Your task to perform on an android device: Open the phone app and click the voicemail tab. Image 0: 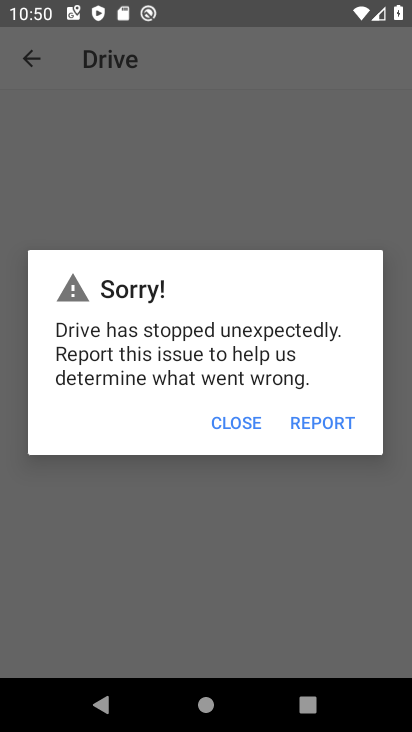
Step 0: click (331, 421)
Your task to perform on an android device: Open the phone app and click the voicemail tab. Image 1: 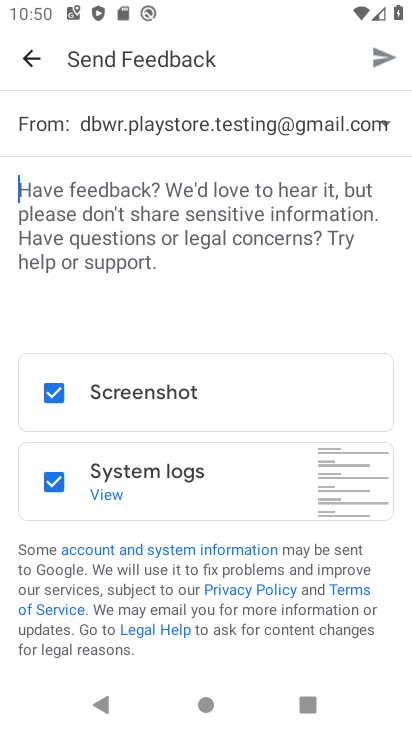
Step 1: press home button
Your task to perform on an android device: Open the phone app and click the voicemail tab. Image 2: 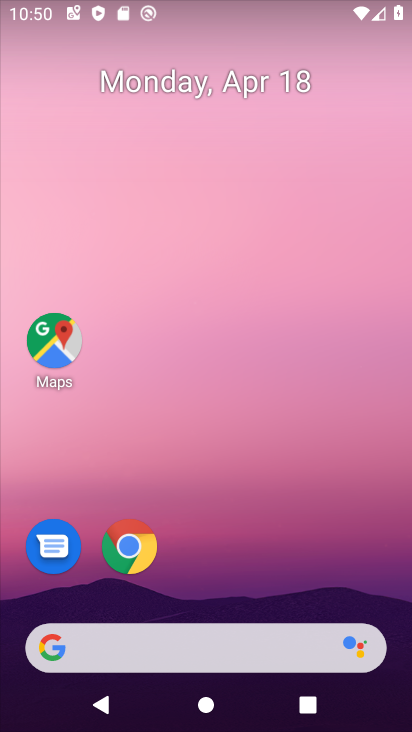
Step 2: drag from (318, 566) to (323, 93)
Your task to perform on an android device: Open the phone app and click the voicemail tab. Image 3: 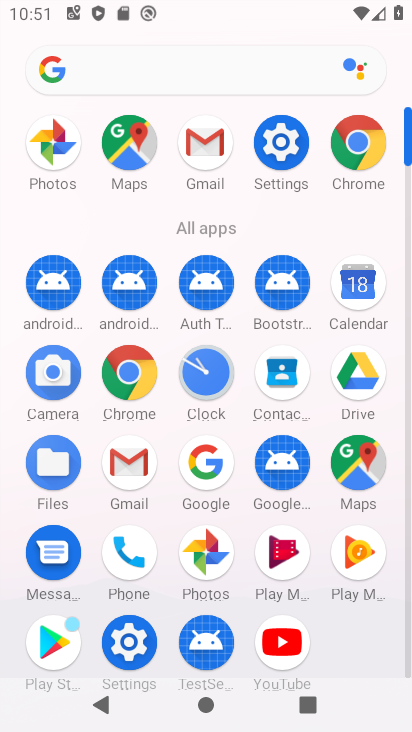
Step 3: click (136, 579)
Your task to perform on an android device: Open the phone app and click the voicemail tab. Image 4: 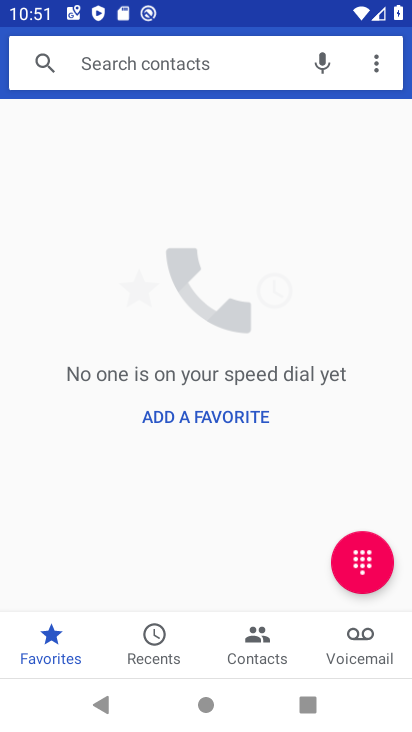
Step 4: click (319, 641)
Your task to perform on an android device: Open the phone app and click the voicemail tab. Image 5: 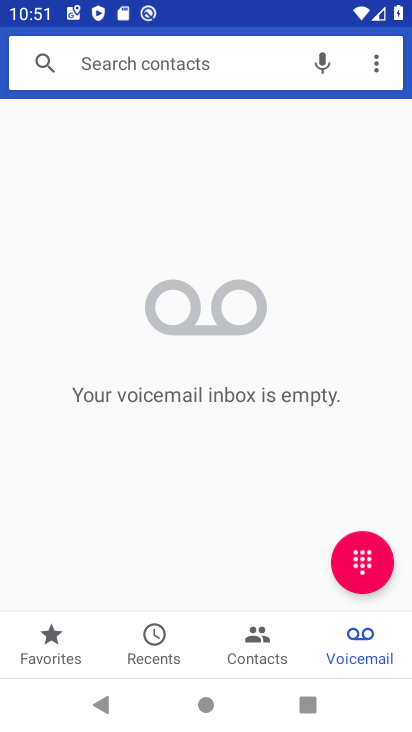
Step 5: task complete